Your task to perform on an android device: Search for seafood restaurants on Google Maps Image 0: 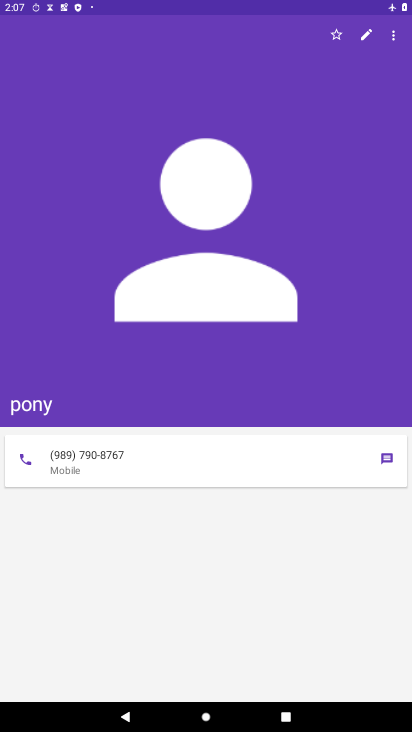
Step 0: press home button
Your task to perform on an android device: Search for seafood restaurants on Google Maps Image 1: 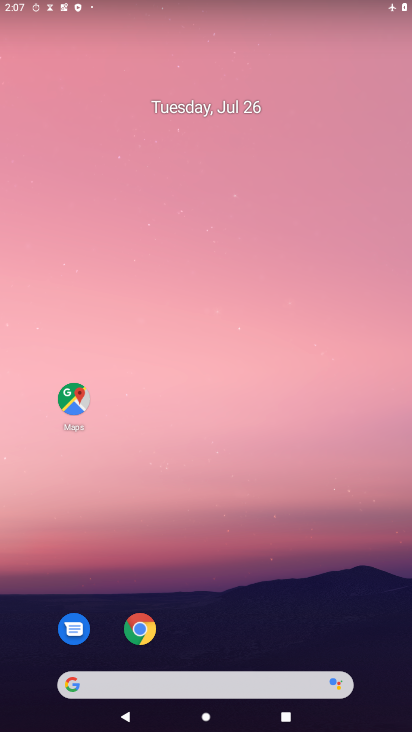
Step 1: drag from (286, 645) to (402, 65)
Your task to perform on an android device: Search for seafood restaurants on Google Maps Image 2: 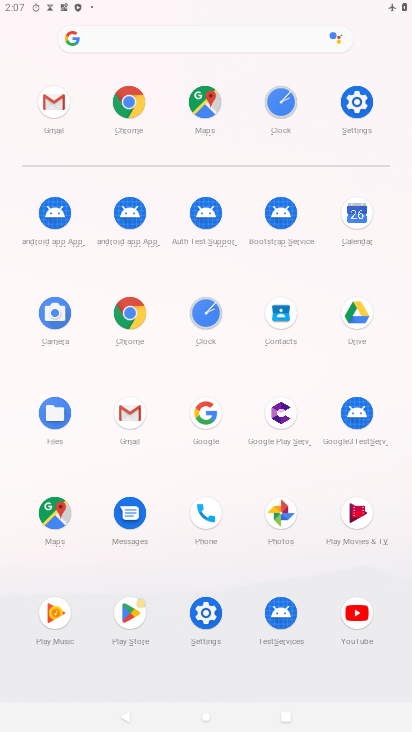
Step 2: click (63, 513)
Your task to perform on an android device: Search for seafood restaurants on Google Maps Image 3: 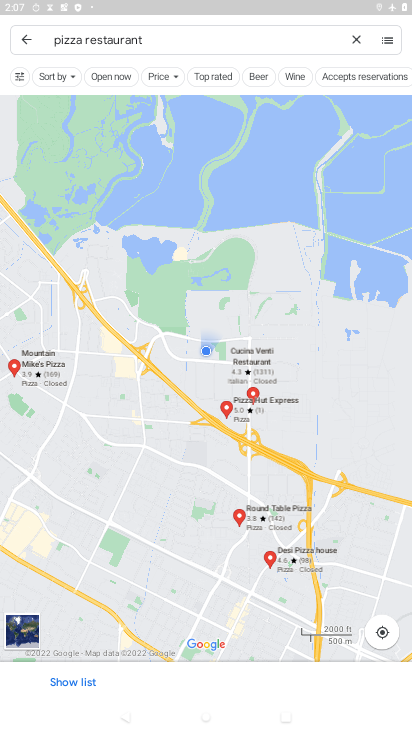
Step 3: click (196, 35)
Your task to perform on an android device: Search for seafood restaurants on Google Maps Image 4: 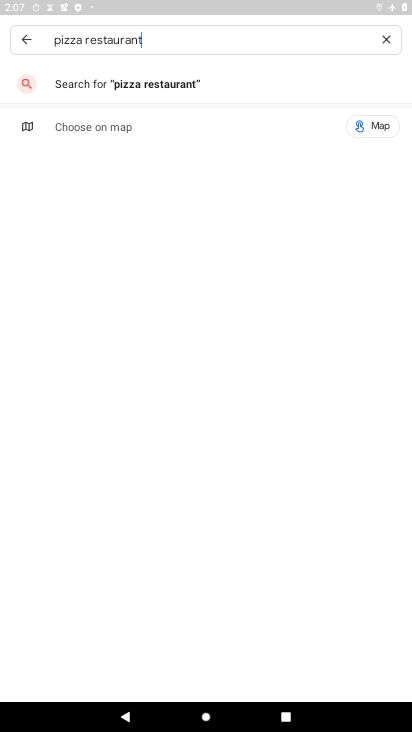
Step 4: click (382, 34)
Your task to perform on an android device: Search for seafood restaurants on Google Maps Image 5: 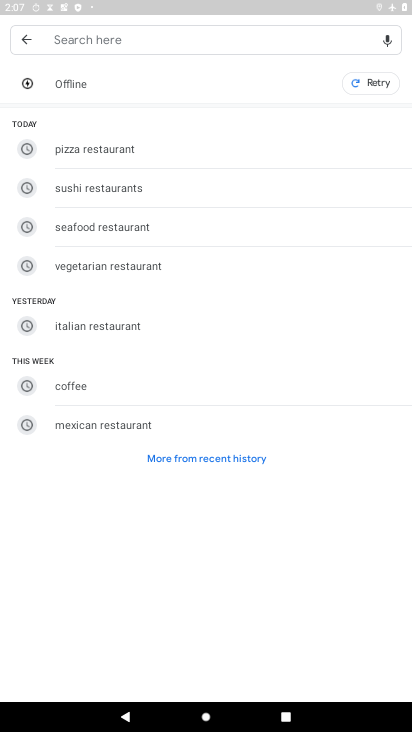
Step 5: click (128, 226)
Your task to perform on an android device: Search for seafood restaurants on Google Maps Image 6: 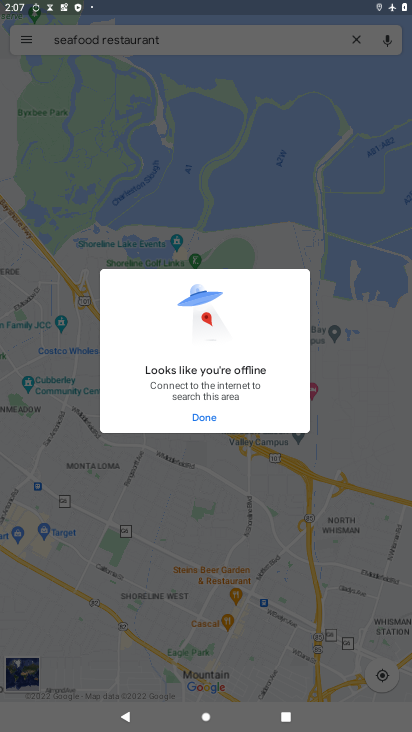
Step 6: click (215, 418)
Your task to perform on an android device: Search for seafood restaurants on Google Maps Image 7: 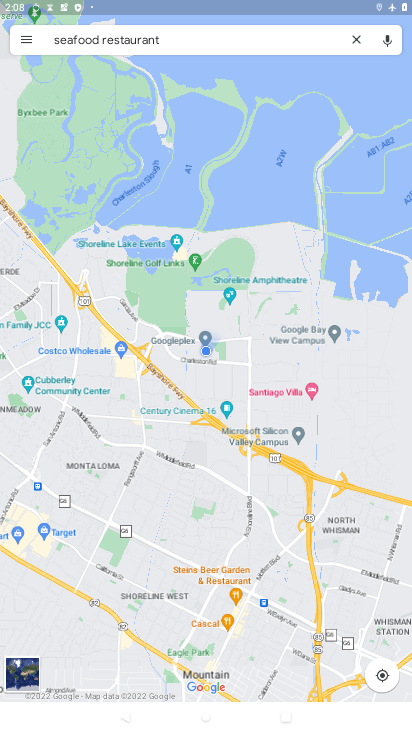
Step 7: task complete